Your task to perform on an android device: Clear all items from cart on amazon. Add macbook pro 13 inch to the cart on amazon, then select checkout. Image 0: 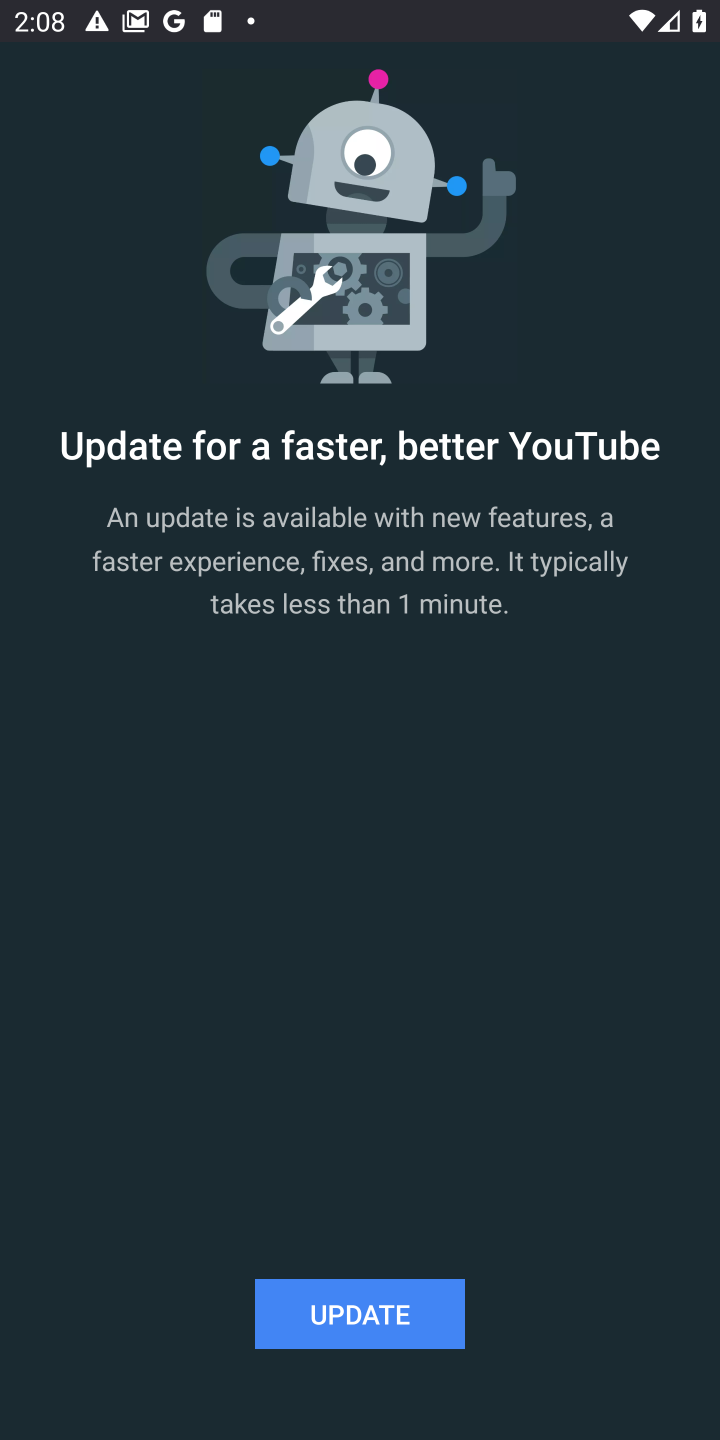
Step 0: press home button
Your task to perform on an android device: Clear all items from cart on amazon. Add macbook pro 13 inch to the cart on amazon, then select checkout. Image 1: 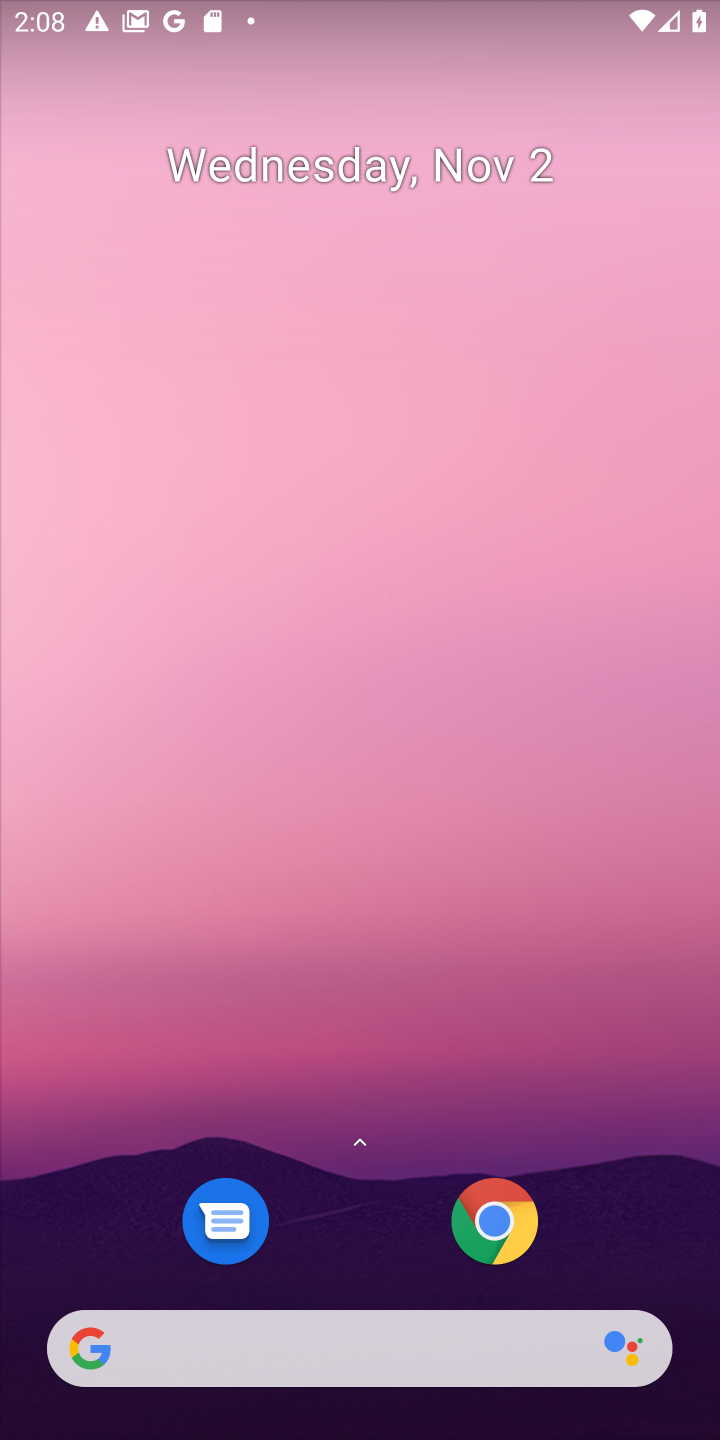
Step 1: click (299, 1338)
Your task to perform on an android device: Clear all items from cart on amazon. Add macbook pro 13 inch to the cart on amazon, then select checkout. Image 2: 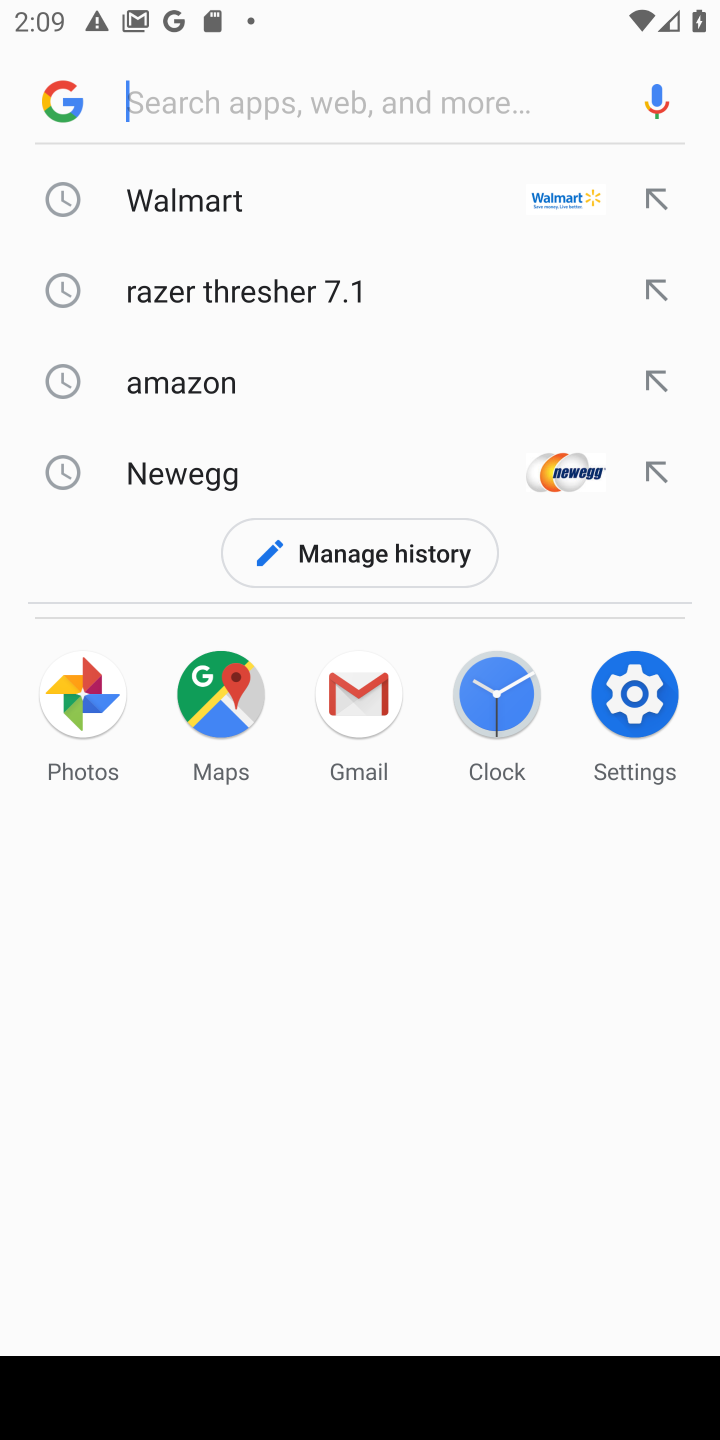
Step 2: type "amazon"
Your task to perform on an android device: Clear all items from cart on amazon. Add macbook pro 13 inch to the cart on amazon, then select checkout. Image 3: 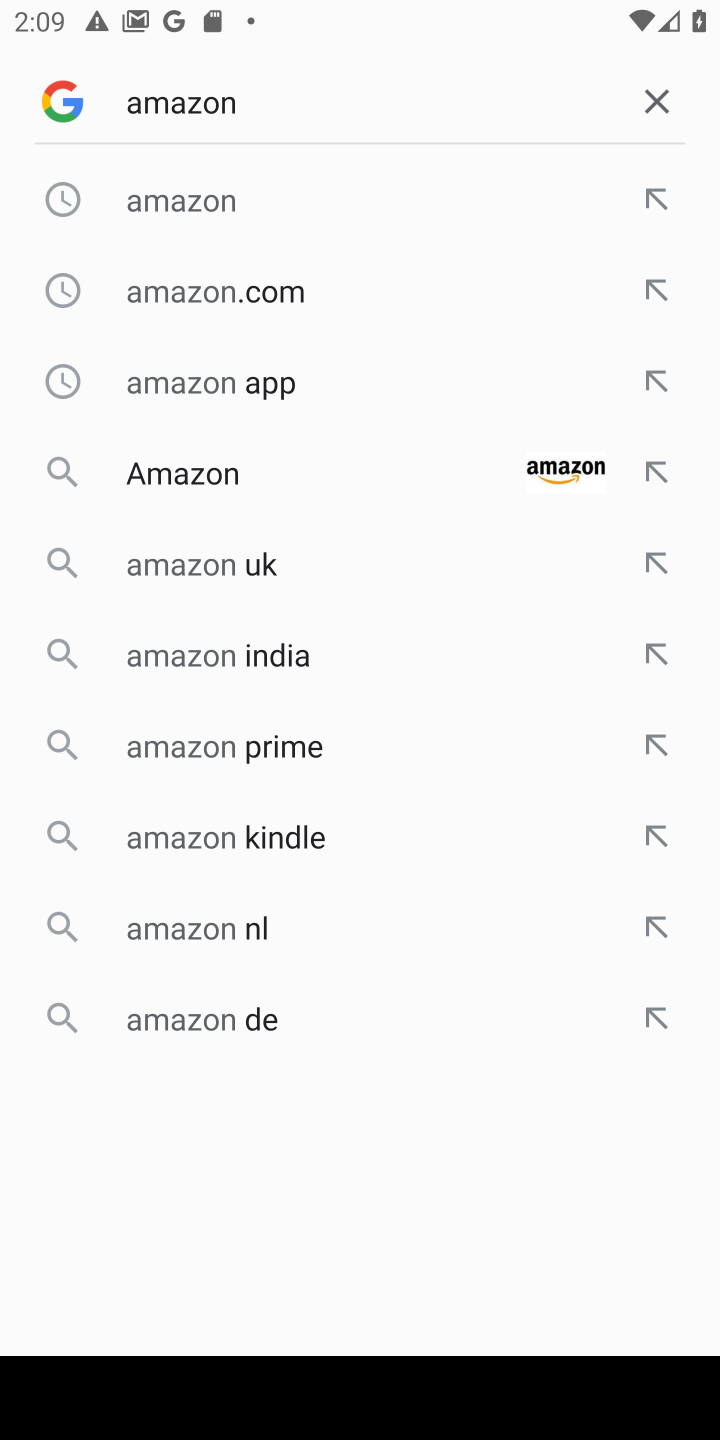
Step 3: click (291, 192)
Your task to perform on an android device: Clear all items from cart on amazon. Add macbook pro 13 inch to the cart on amazon, then select checkout. Image 4: 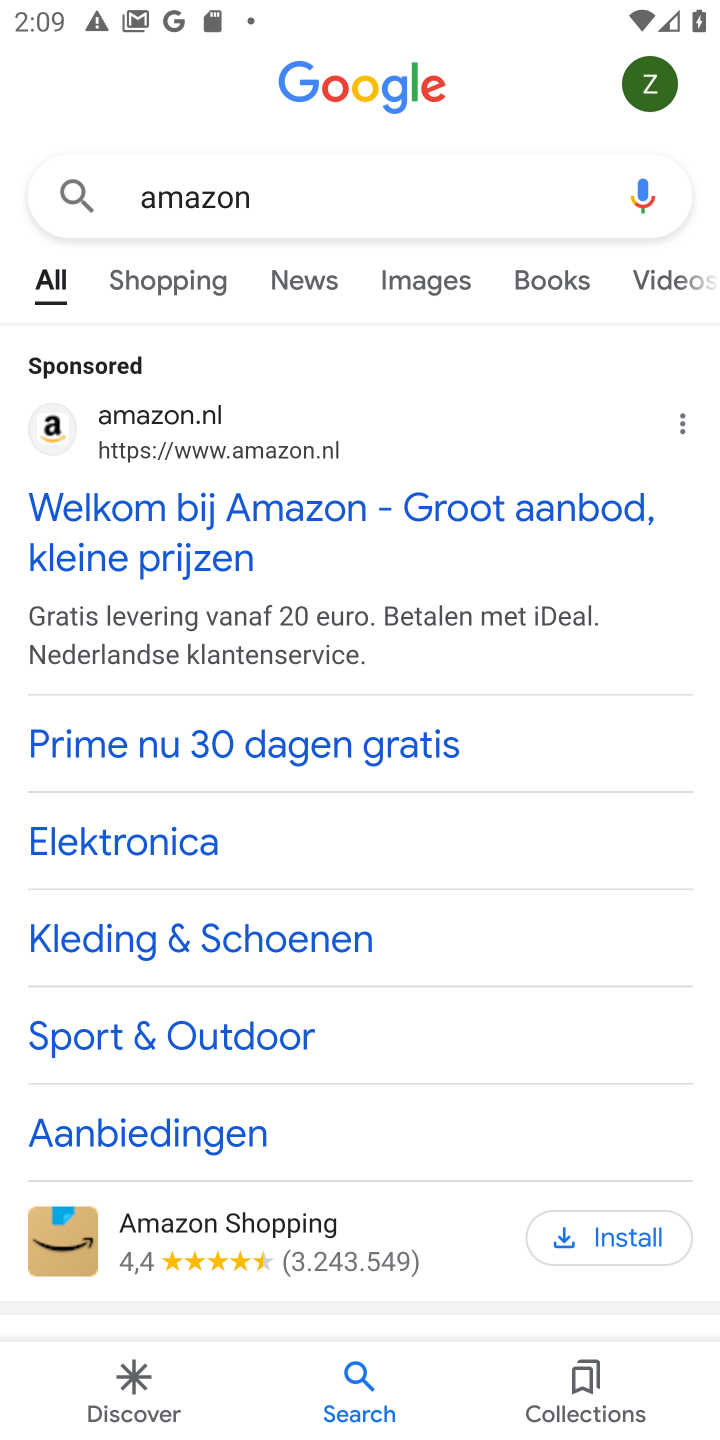
Step 4: click (294, 504)
Your task to perform on an android device: Clear all items from cart on amazon. Add macbook pro 13 inch to the cart on amazon, then select checkout. Image 5: 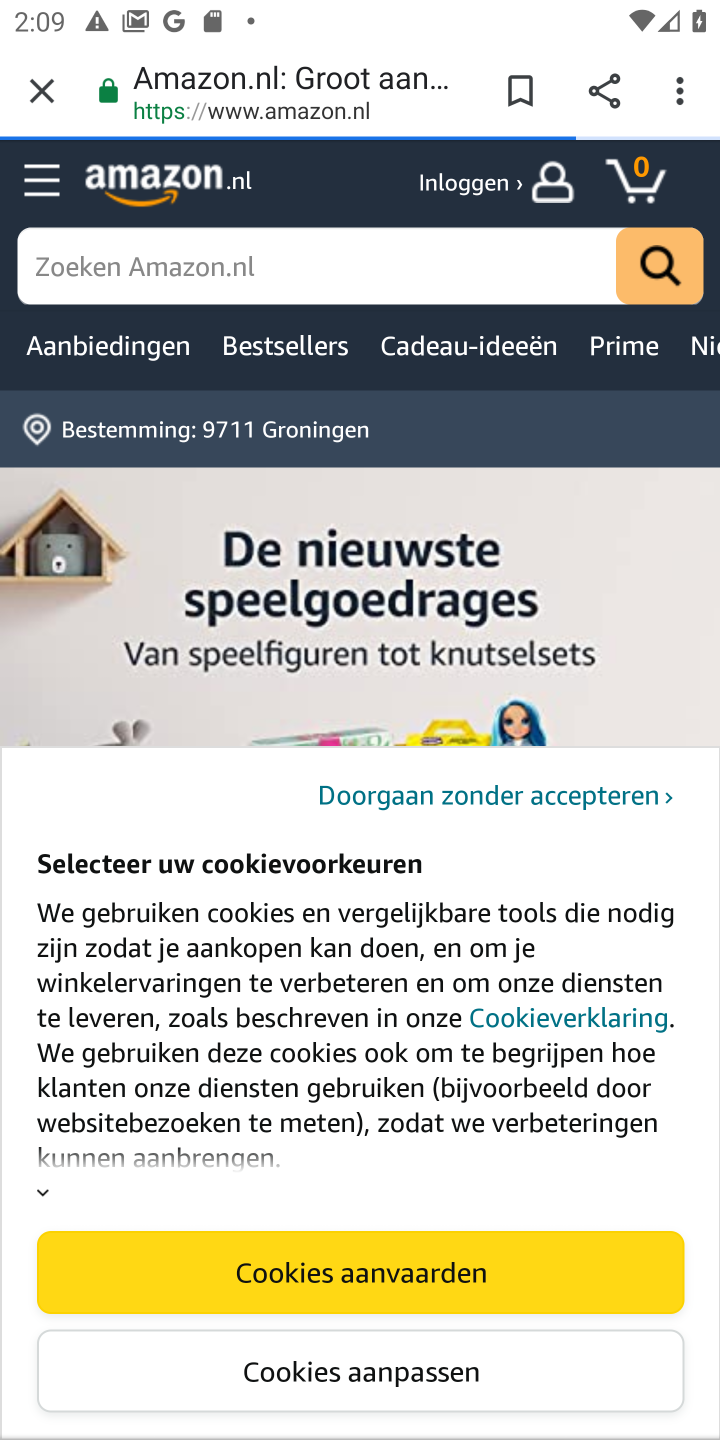
Step 5: click (434, 285)
Your task to perform on an android device: Clear all items from cart on amazon. Add macbook pro 13 inch to the cart on amazon, then select checkout. Image 6: 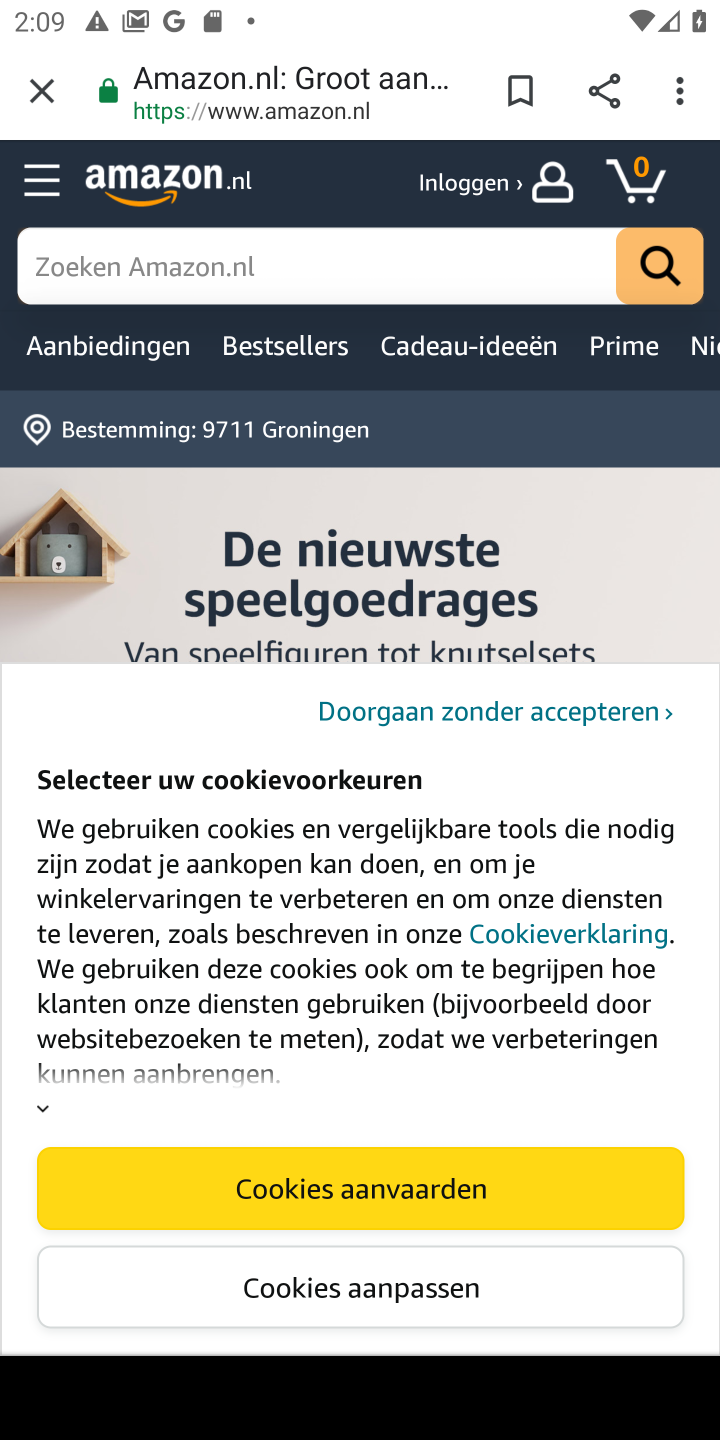
Step 6: type "macbook pro 13"
Your task to perform on an android device: Clear all items from cart on amazon. Add macbook pro 13 inch to the cart on amazon, then select checkout. Image 7: 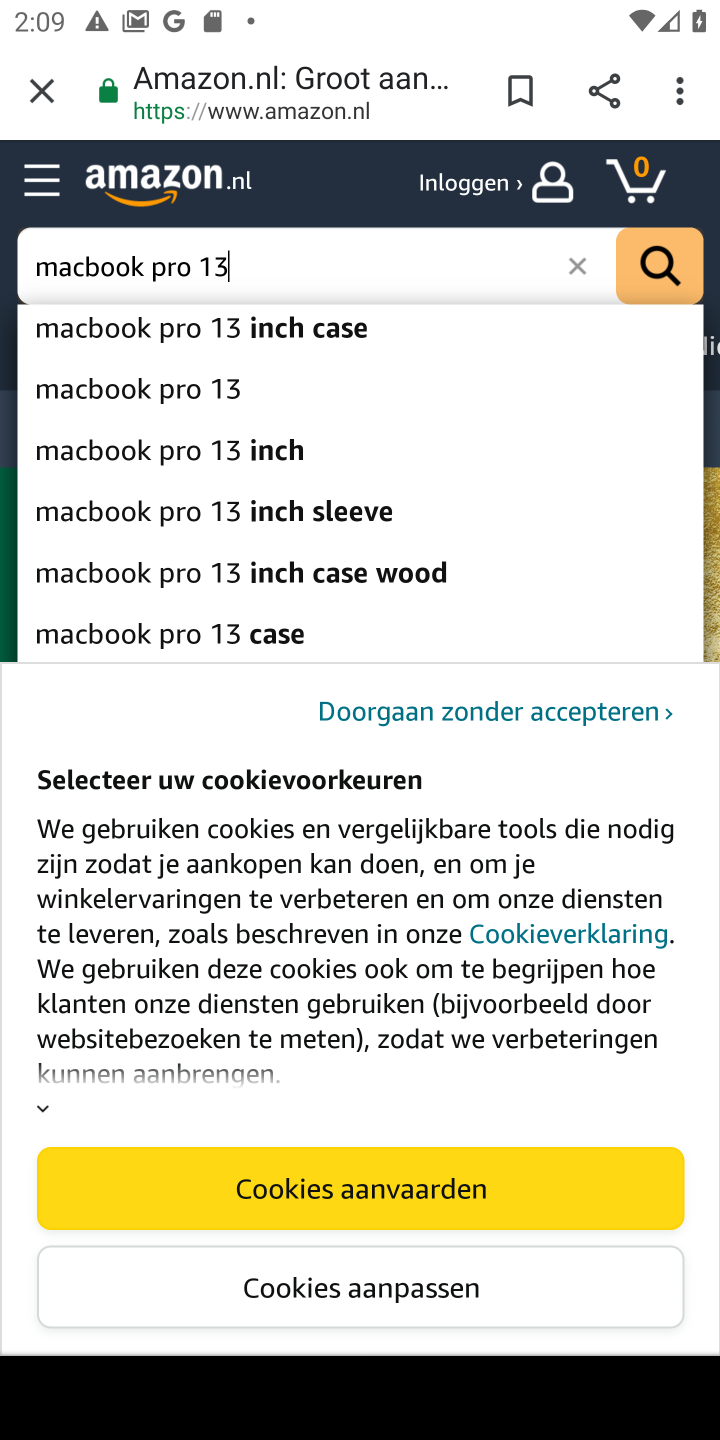
Step 7: click (469, 1196)
Your task to perform on an android device: Clear all items from cart on amazon. Add macbook pro 13 inch to the cart on amazon, then select checkout. Image 8: 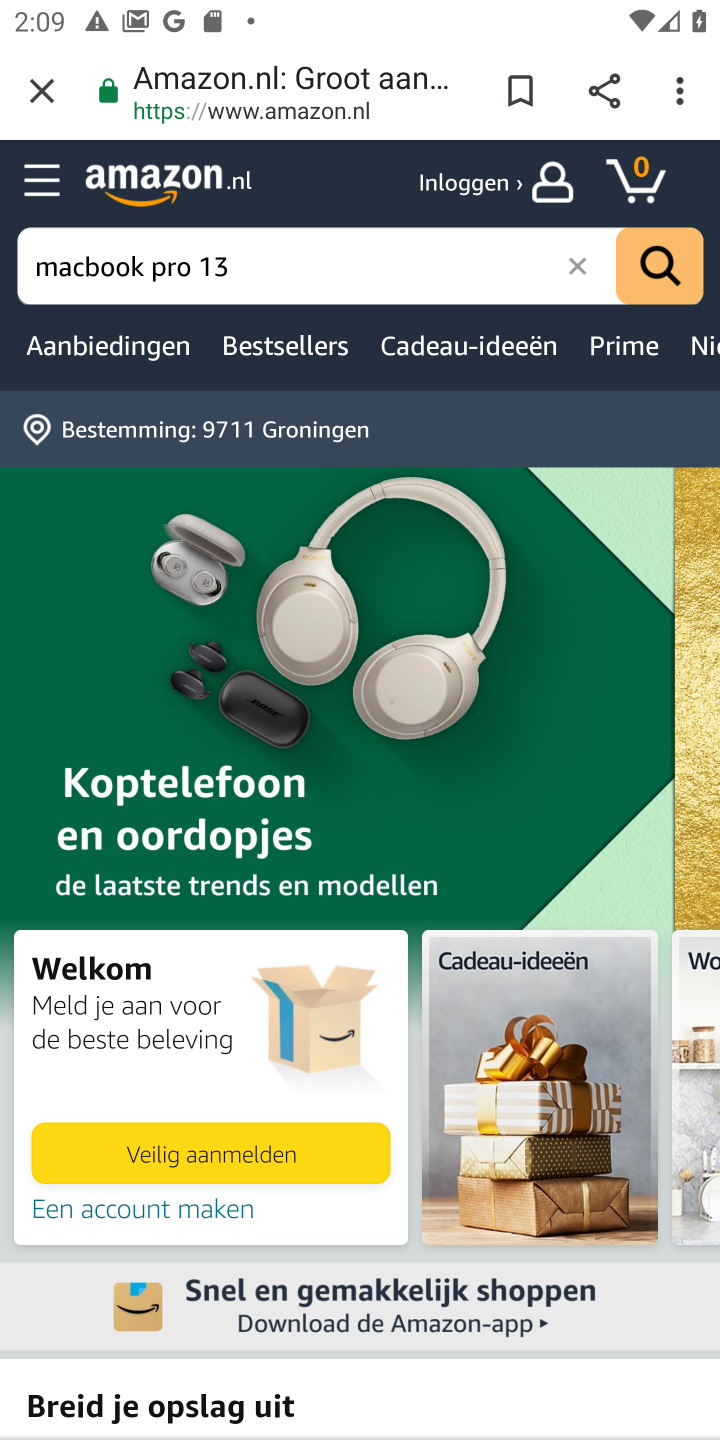
Step 8: click (636, 268)
Your task to perform on an android device: Clear all items from cart on amazon. Add macbook pro 13 inch to the cart on amazon, then select checkout. Image 9: 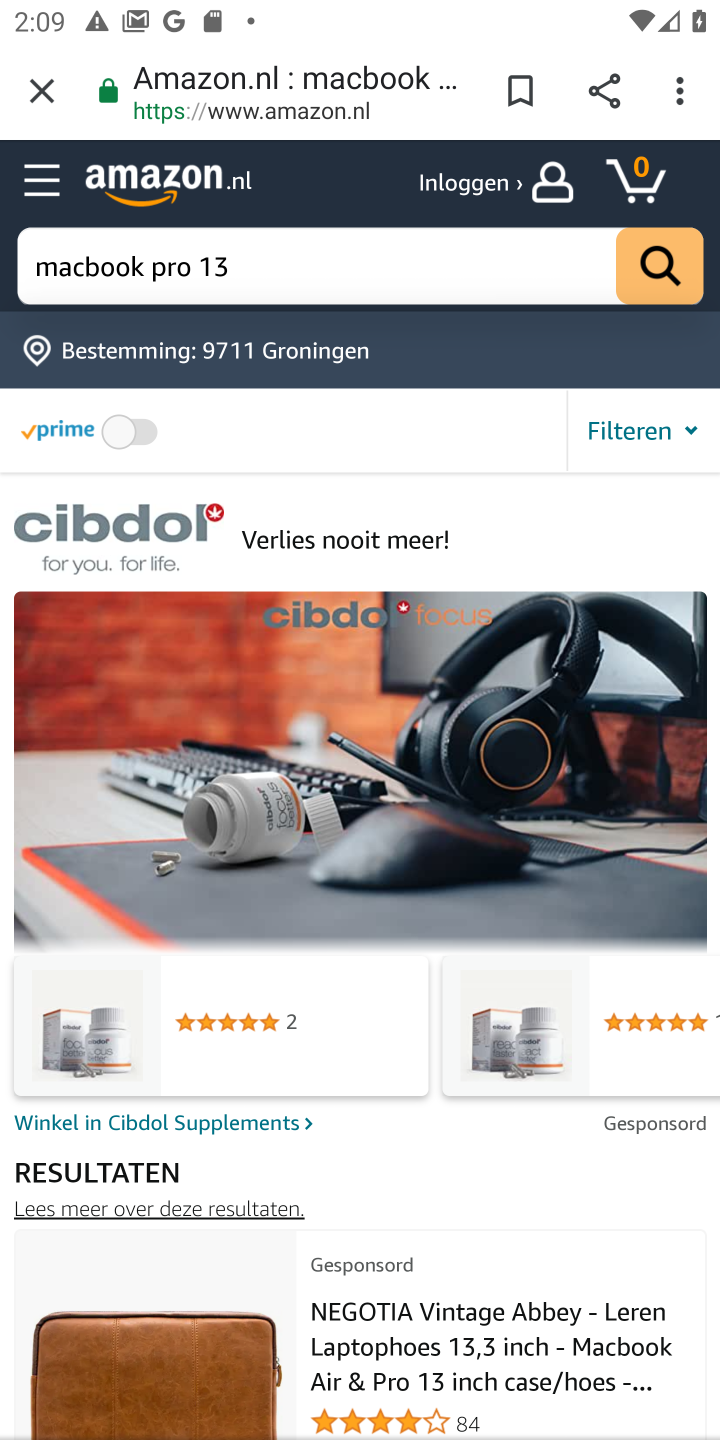
Step 9: click (650, 270)
Your task to perform on an android device: Clear all items from cart on amazon. Add macbook pro 13 inch to the cart on amazon, then select checkout. Image 10: 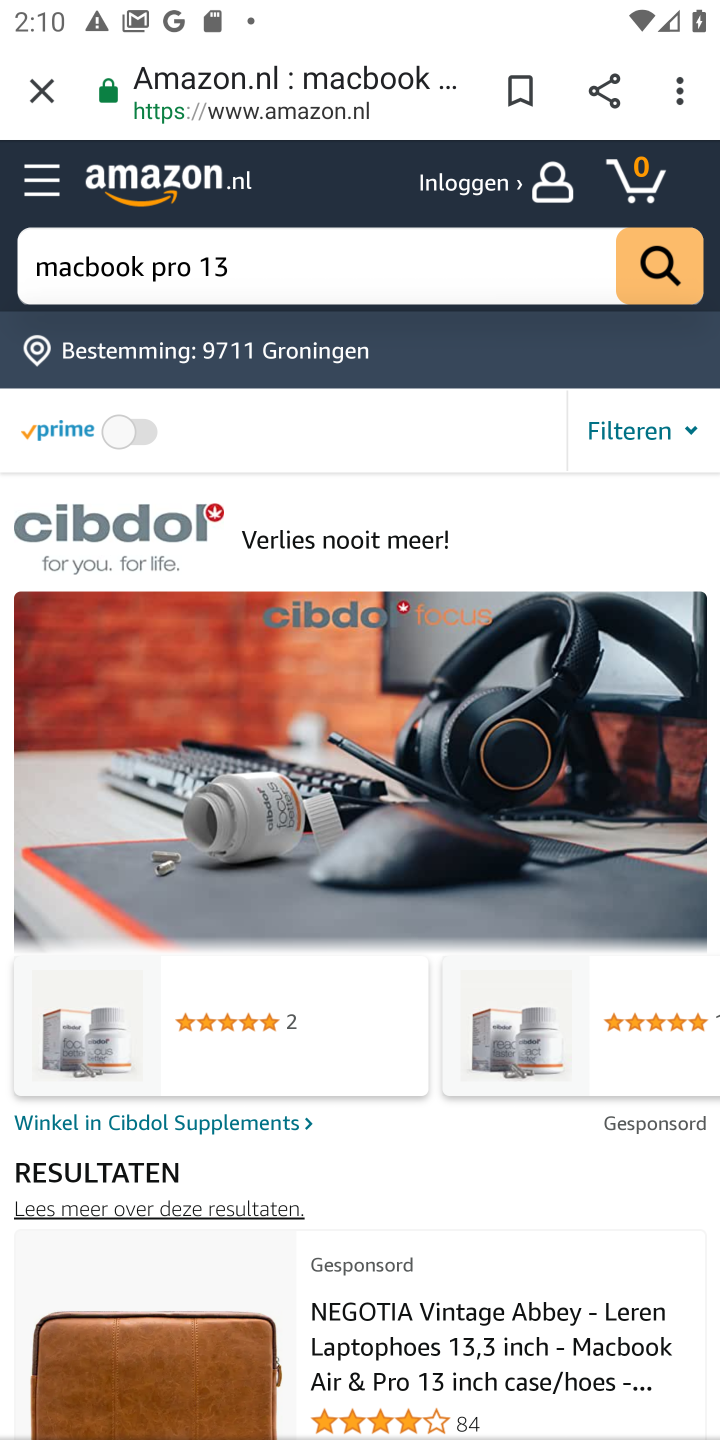
Step 10: task complete